Your task to perform on an android device: Search for Mexican restaurants on Maps Image 0: 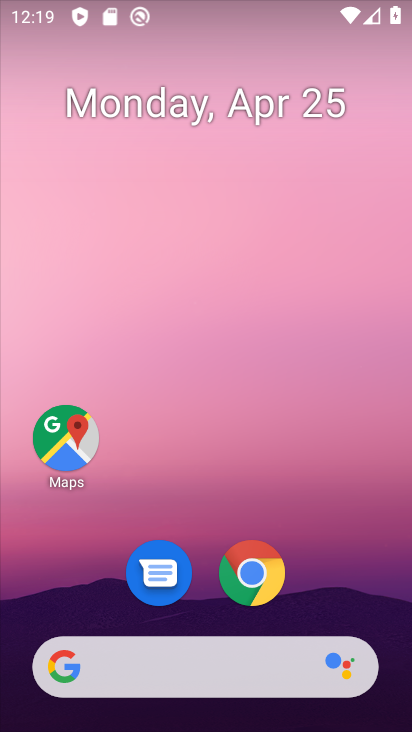
Step 0: drag from (255, 690) to (268, 83)
Your task to perform on an android device: Search for Mexican restaurants on Maps Image 1: 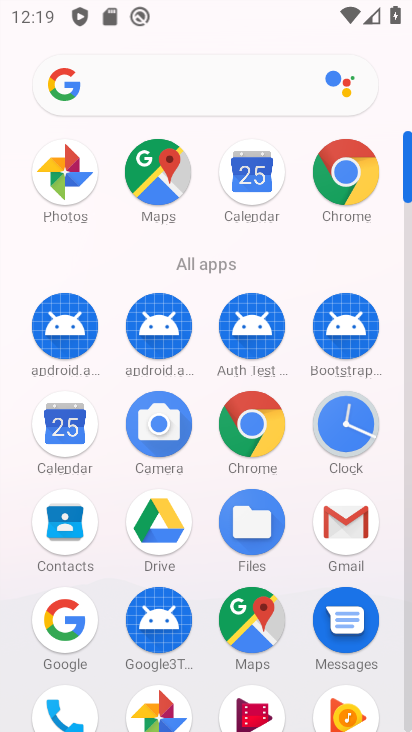
Step 1: click (157, 172)
Your task to perform on an android device: Search for Mexican restaurants on Maps Image 2: 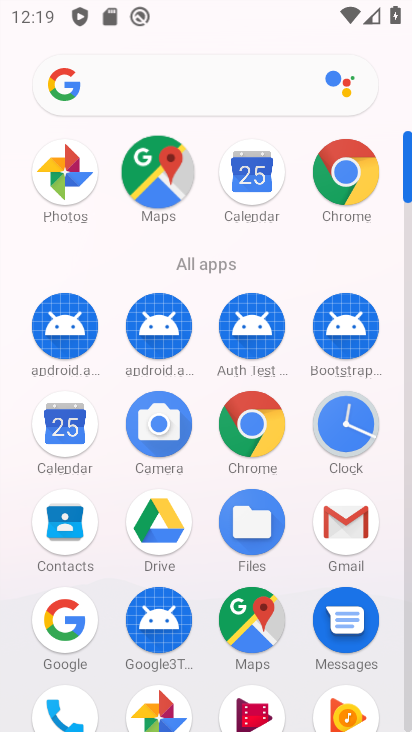
Step 2: click (157, 172)
Your task to perform on an android device: Search for Mexican restaurants on Maps Image 3: 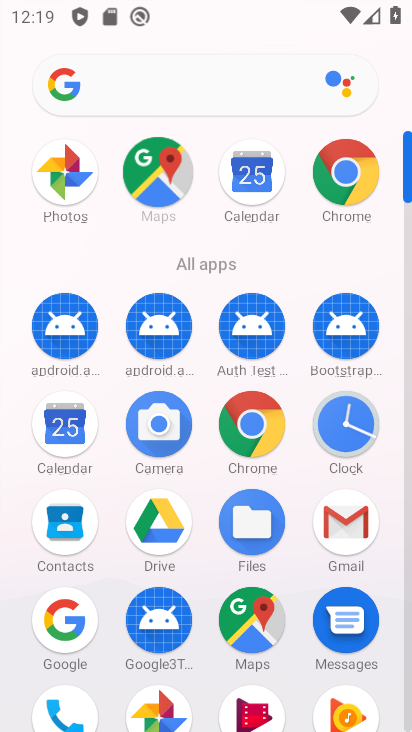
Step 3: click (157, 172)
Your task to perform on an android device: Search for Mexican restaurants on Maps Image 4: 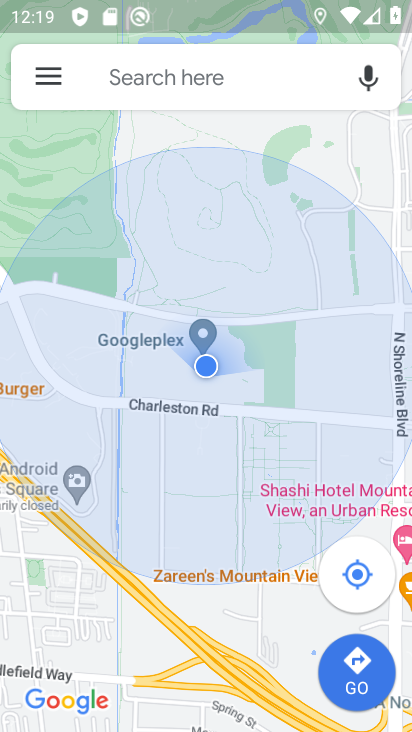
Step 4: click (85, 81)
Your task to perform on an android device: Search for Mexican restaurants on Maps Image 5: 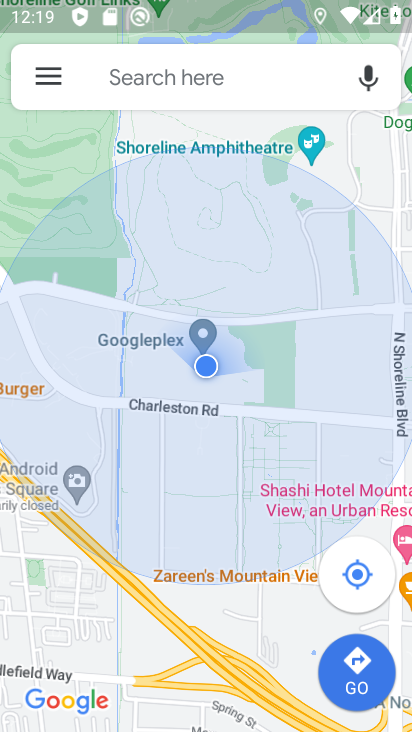
Step 5: click (103, 84)
Your task to perform on an android device: Search for Mexican restaurants on Maps Image 6: 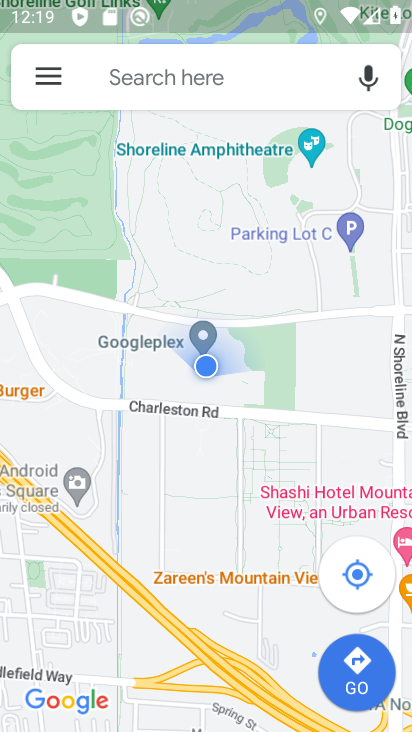
Step 6: click (107, 82)
Your task to perform on an android device: Search for Mexican restaurants on Maps Image 7: 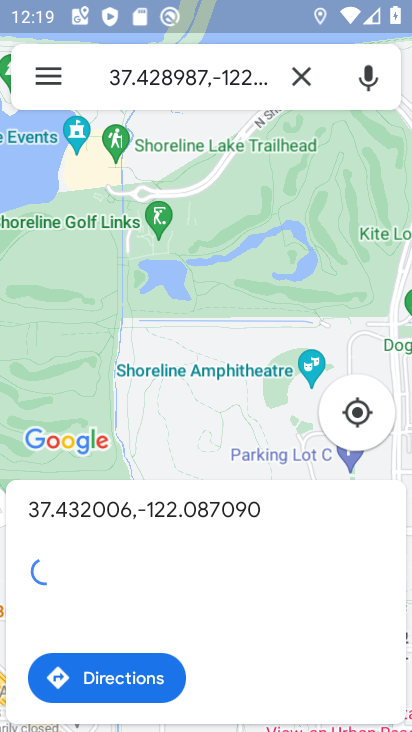
Step 7: click (295, 74)
Your task to perform on an android device: Search for Mexican restaurants on Maps Image 8: 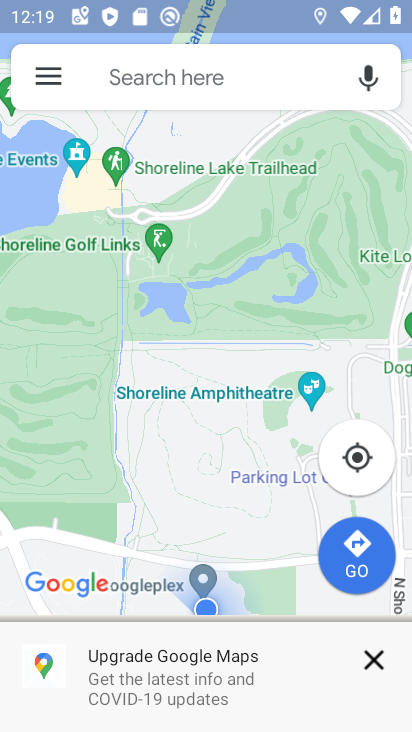
Step 8: click (112, 78)
Your task to perform on an android device: Search for Mexican restaurants on Maps Image 9: 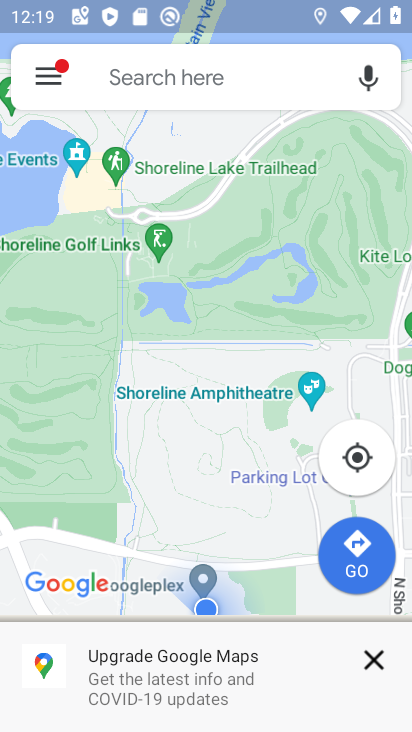
Step 9: click (112, 78)
Your task to perform on an android device: Search for Mexican restaurants on Maps Image 10: 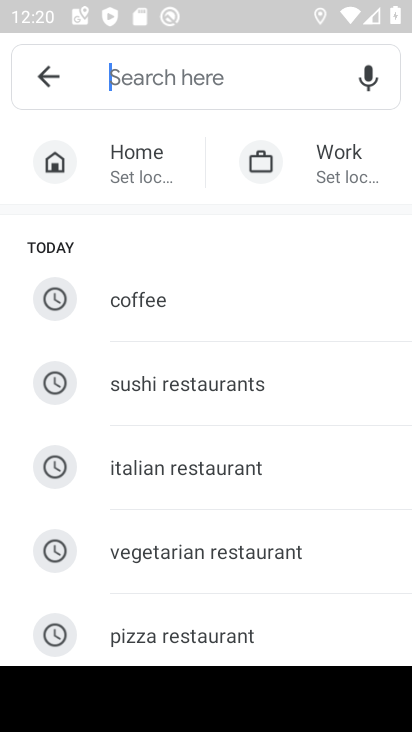
Step 10: type "mexican restaurants"
Your task to perform on an android device: Search for Mexican restaurants on Maps Image 11: 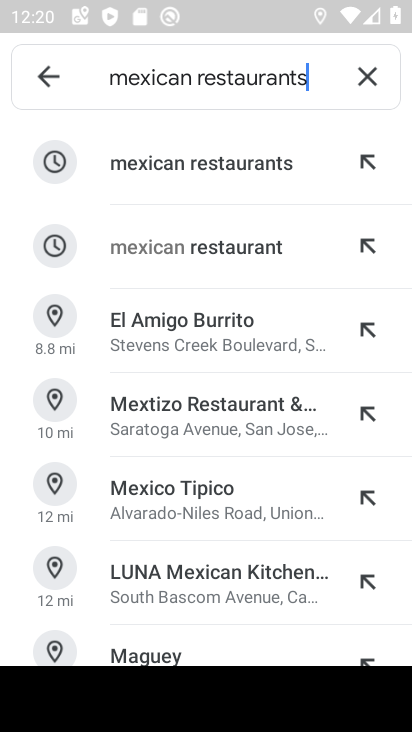
Step 11: click (267, 165)
Your task to perform on an android device: Search for Mexican restaurants on Maps Image 12: 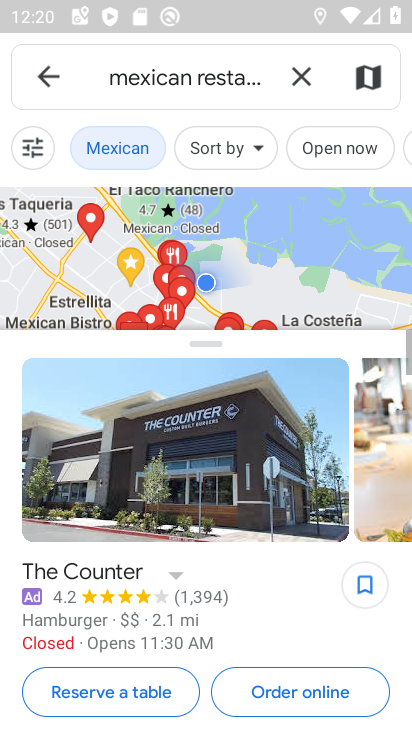
Step 12: task complete